Your task to perform on an android device: turn off notifications settings in the gmail app Image 0: 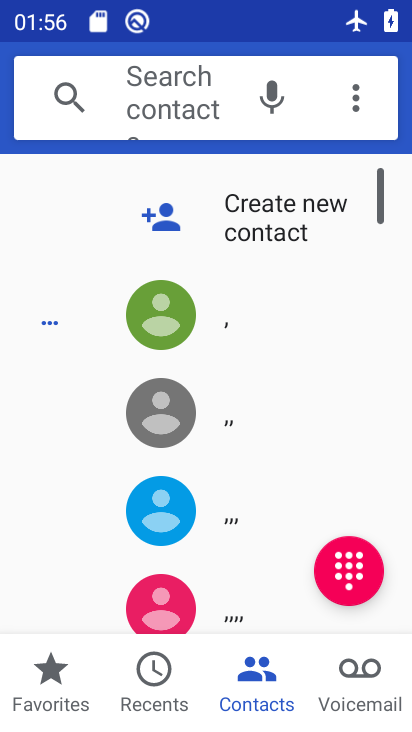
Step 0: press home button
Your task to perform on an android device: turn off notifications settings in the gmail app Image 1: 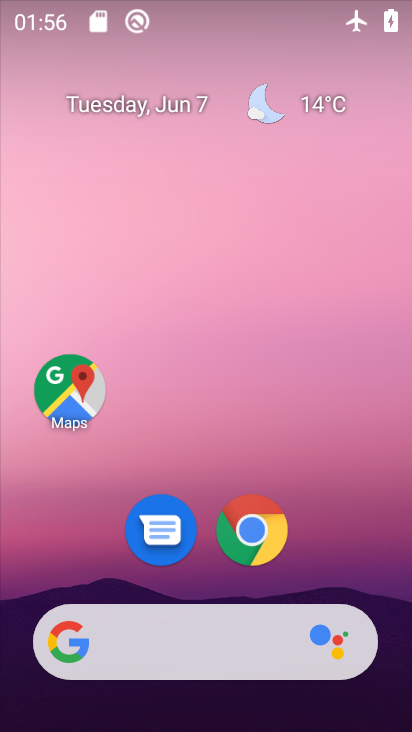
Step 1: drag from (289, 561) to (312, 173)
Your task to perform on an android device: turn off notifications settings in the gmail app Image 2: 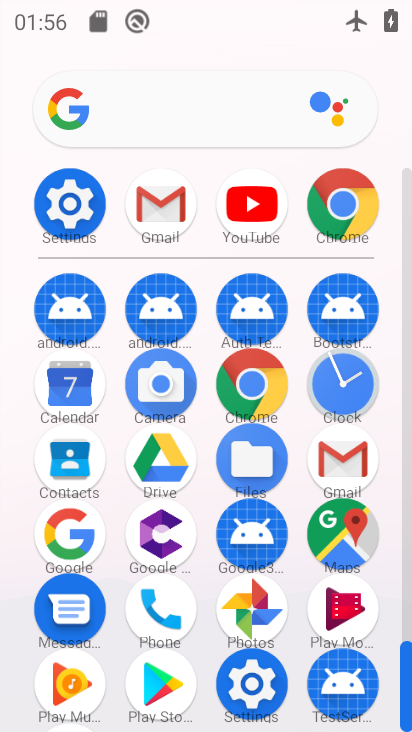
Step 2: click (353, 456)
Your task to perform on an android device: turn off notifications settings in the gmail app Image 3: 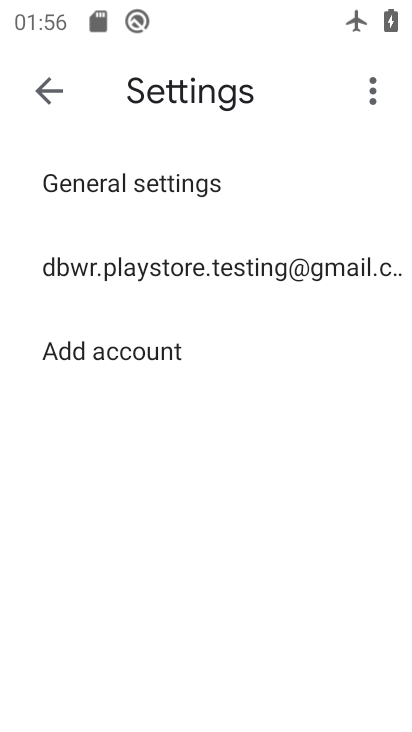
Step 3: click (108, 259)
Your task to perform on an android device: turn off notifications settings in the gmail app Image 4: 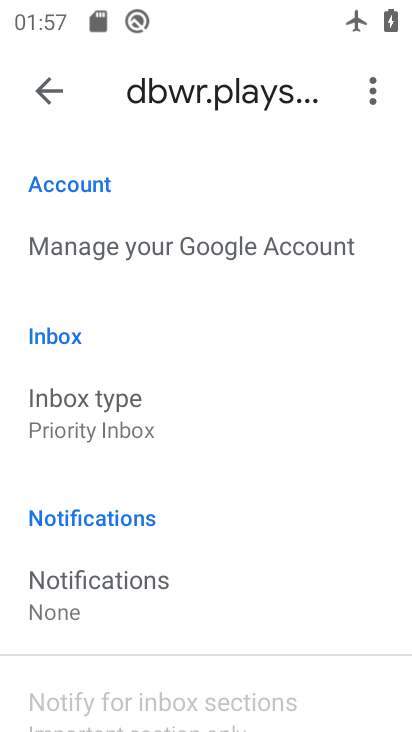
Step 4: click (85, 615)
Your task to perform on an android device: turn off notifications settings in the gmail app Image 5: 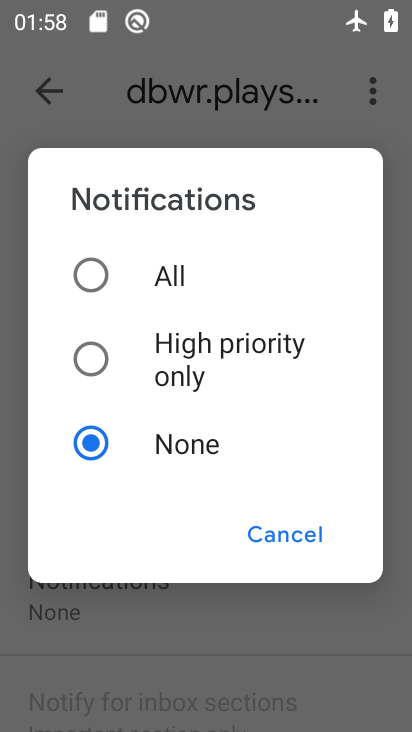
Step 5: task complete